Your task to perform on an android device: uninstall "Microsoft Authenticator" Image 0: 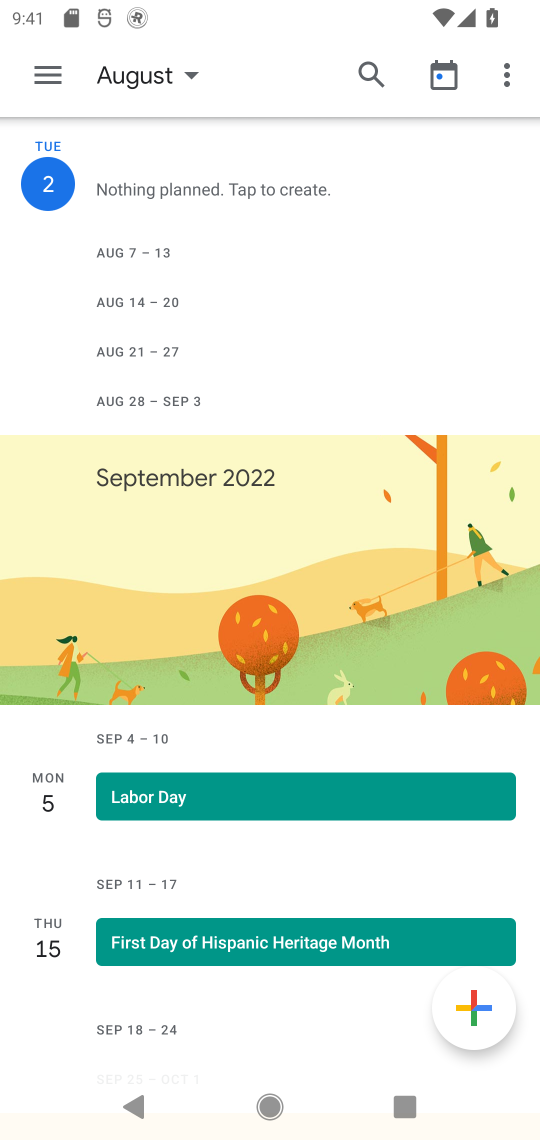
Step 0: press home button
Your task to perform on an android device: uninstall "Microsoft Authenticator" Image 1: 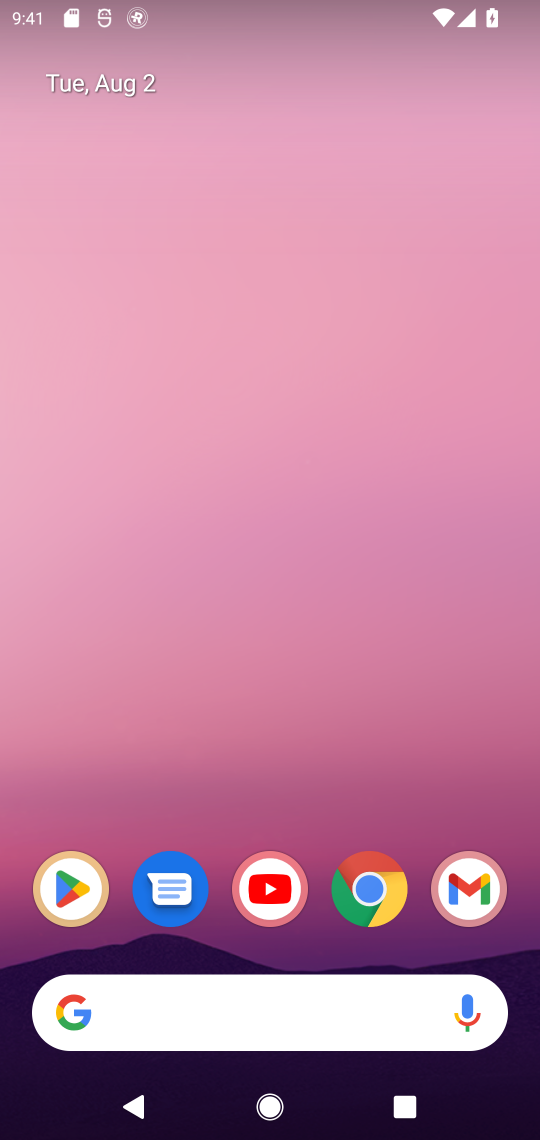
Step 1: click (68, 897)
Your task to perform on an android device: uninstall "Microsoft Authenticator" Image 2: 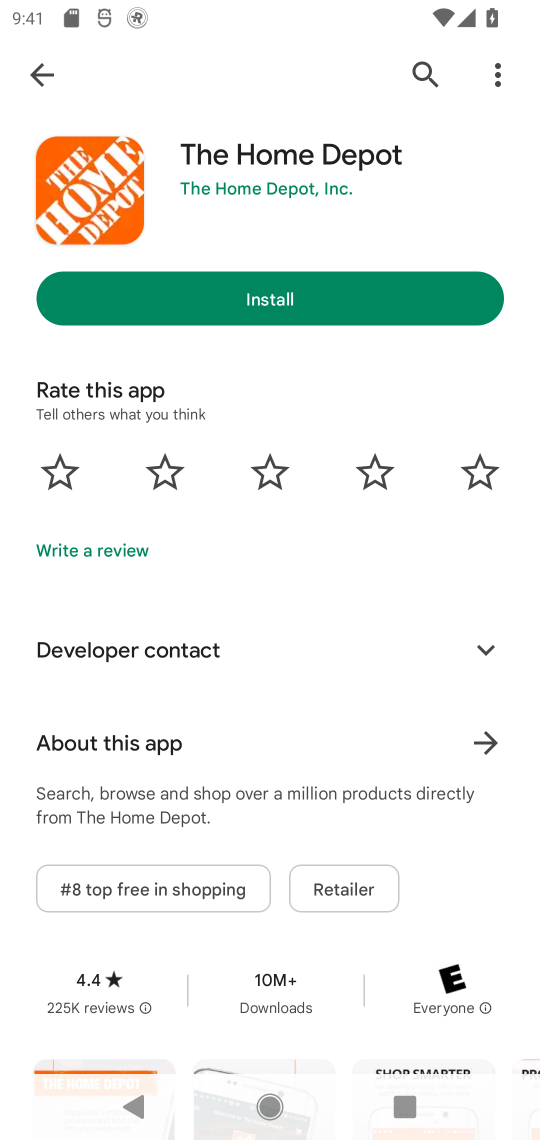
Step 2: click (403, 57)
Your task to perform on an android device: uninstall "Microsoft Authenticator" Image 3: 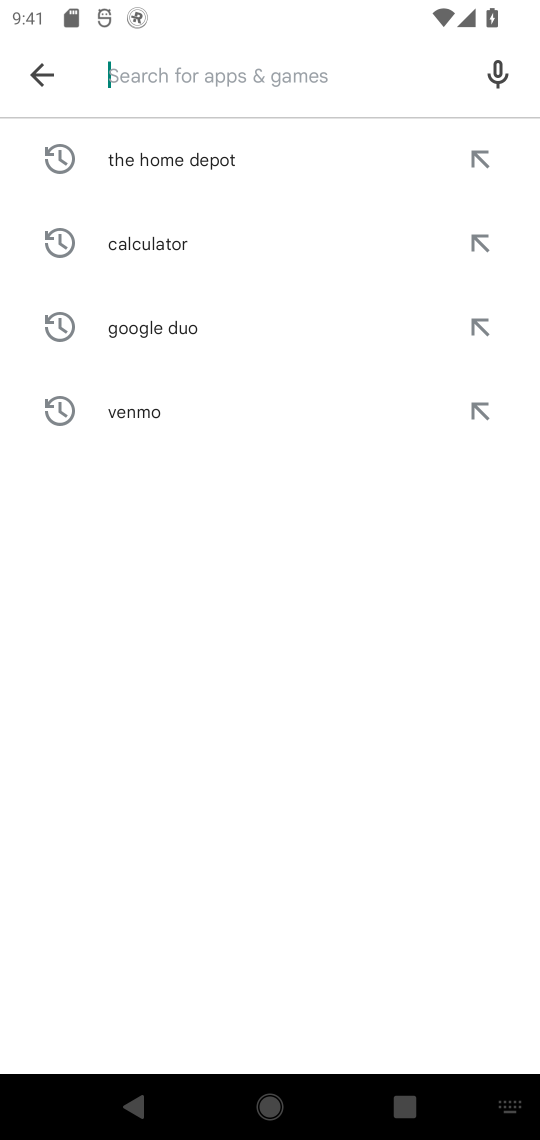
Step 3: type "Microsoft Authenticator"
Your task to perform on an android device: uninstall "Microsoft Authenticator" Image 4: 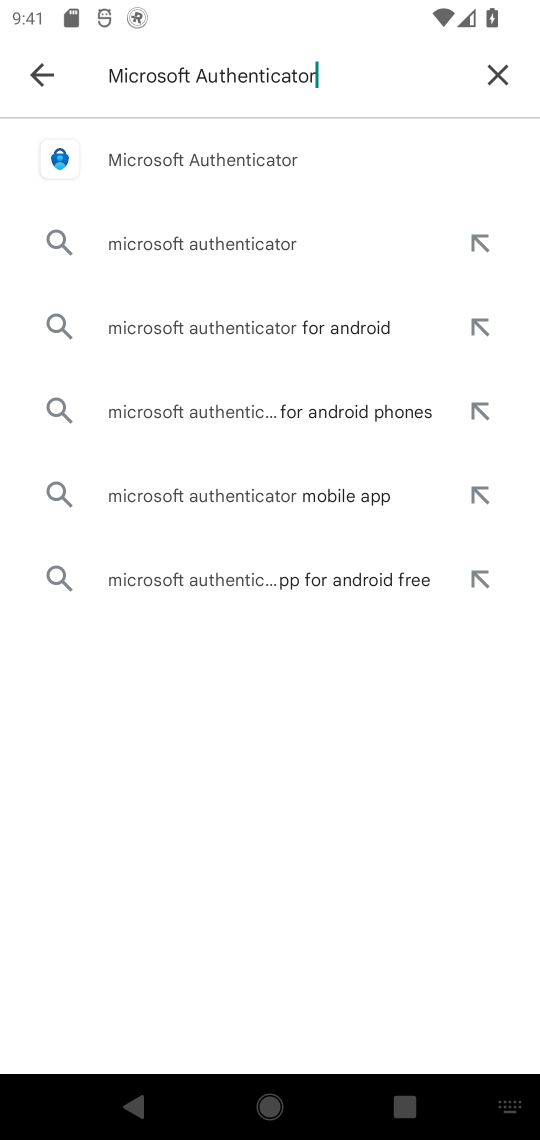
Step 4: click (220, 180)
Your task to perform on an android device: uninstall "Microsoft Authenticator" Image 5: 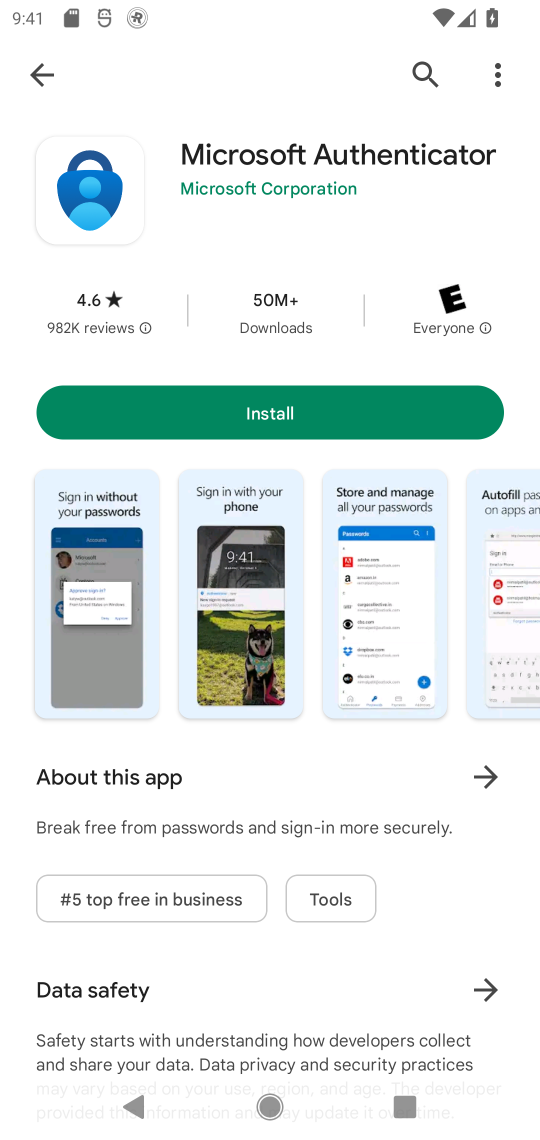
Step 5: task complete